Your task to perform on an android device: turn on data saver in the chrome app Image 0: 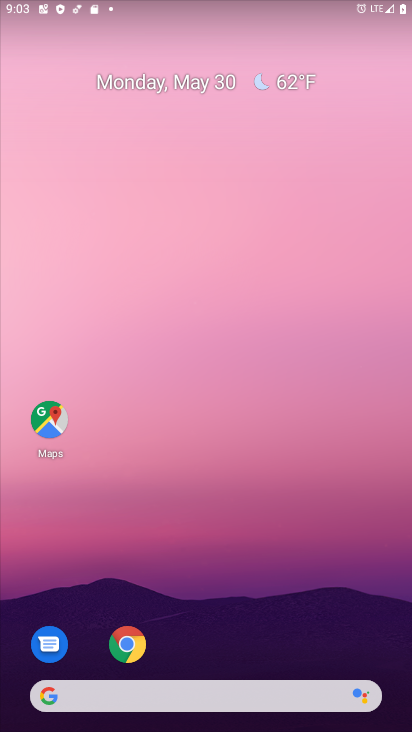
Step 0: click (130, 645)
Your task to perform on an android device: turn on data saver in the chrome app Image 1: 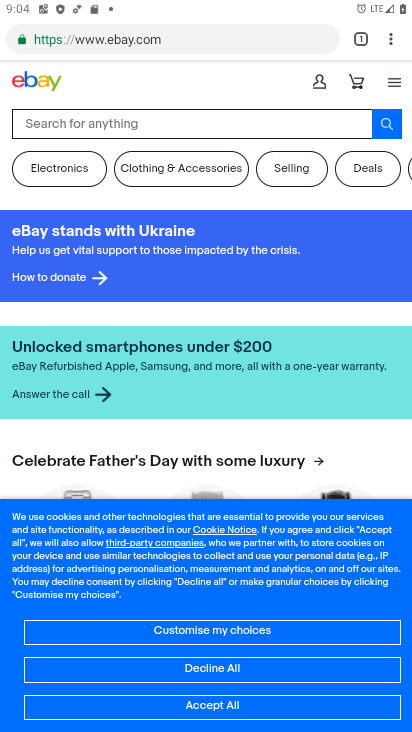
Step 1: click (393, 44)
Your task to perform on an android device: turn on data saver in the chrome app Image 2: 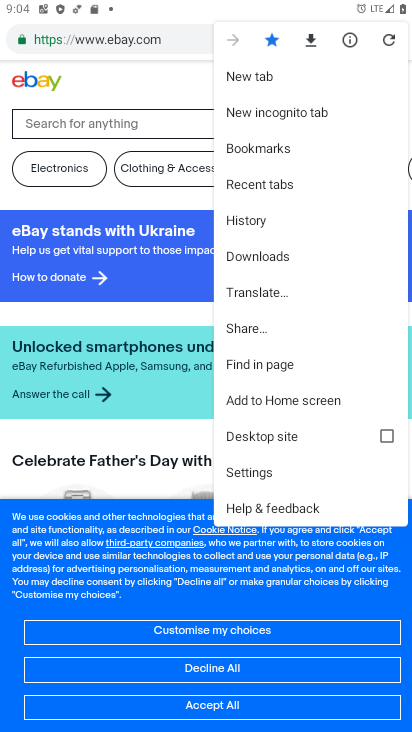
Step 2: click (257, 470)
Your task to perform on an android device: turn on data saver in the chrome app Image 3: 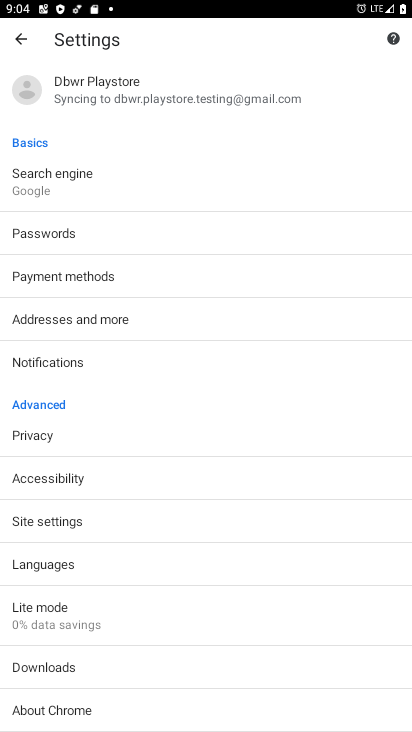
Step 3: click (61, 604)
Your task to perform on an android device: turn on data saver in the chrome app Image 4: 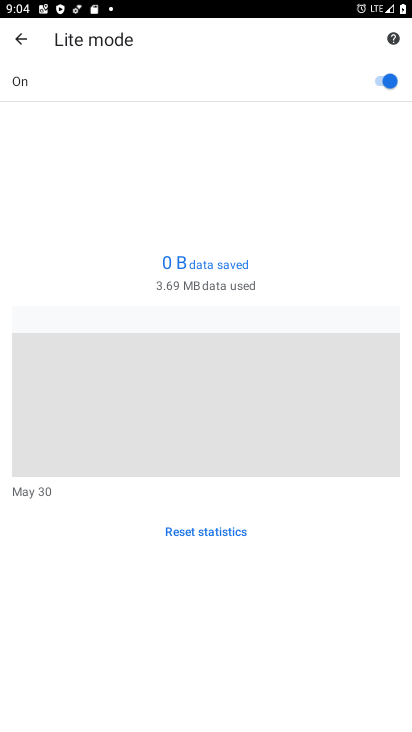
Step 4: task complete